Your task to perform on an android device: Toggle the flashlight Image 0: 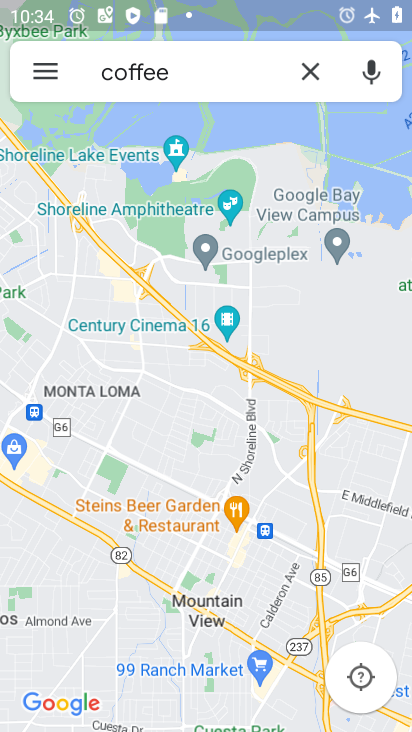
Step 0: press home button
Your task to perform on an android device: Toggle the flashlight Image 1: 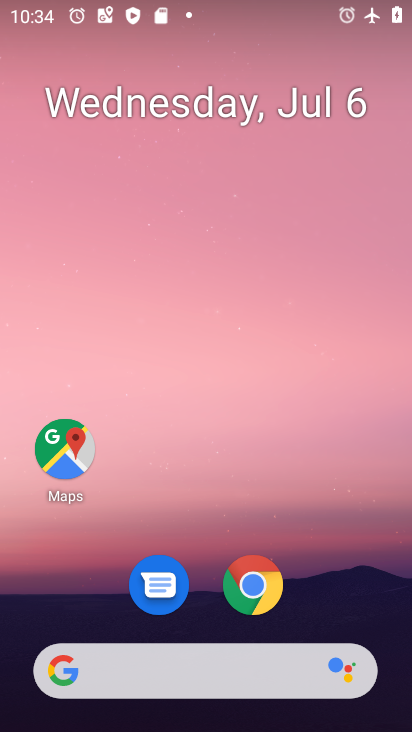
Step 1: drag from (246, 476) to (322, 0)
Your task to perform on an android device: Toggle the flashlight Image 2: 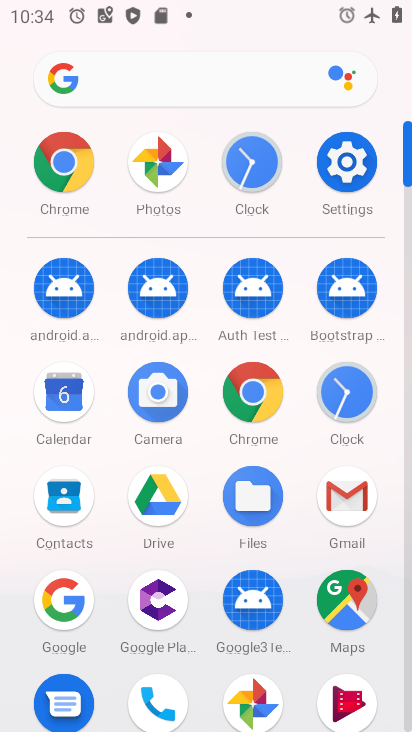
Step 2: click (343, 164)
Your task to perform on an android device: Toggle the flashlight Image 3: 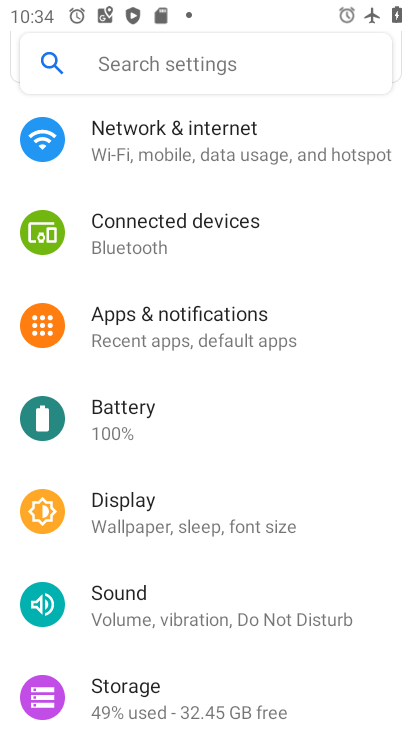
Step 3: click (243, 56)
Your task to perform on an android device: Toggle the flashlight Image 4: 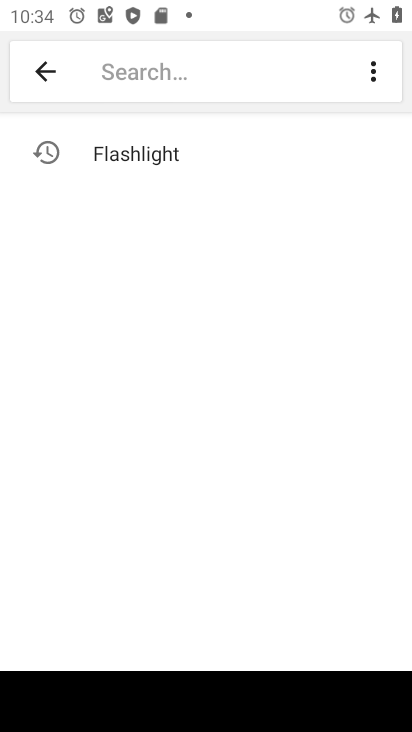
Step 4: click (170, 158)
Your task to perform on an android device: Toggle the flashlight Image 5: 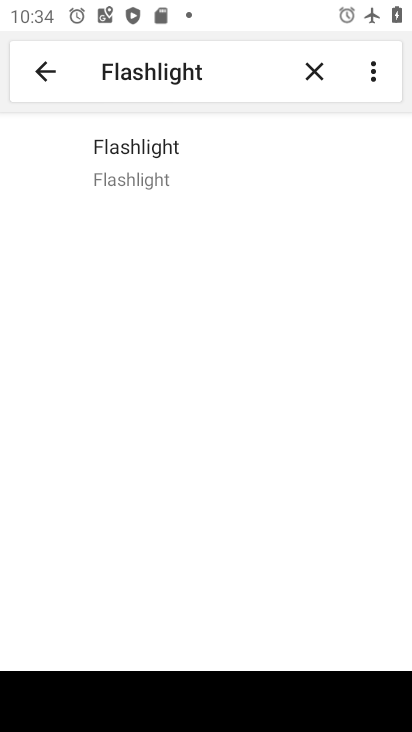
Step 5: click (170, 156)
Your task to perform on an android device: Toggle the flashlight Image 6: 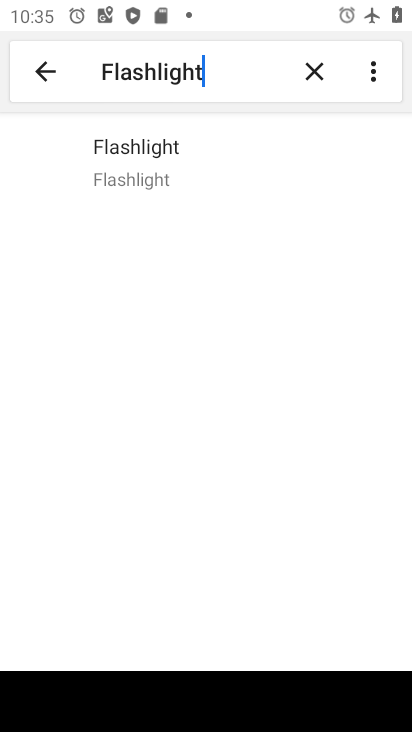
Step 6: click (156, 162)
Your task to perform on an android device: Toggle the flashlight Image 7: 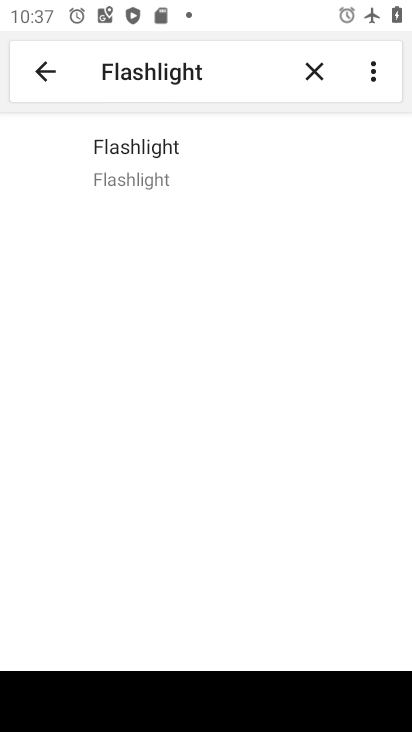
Step 7: task complete